Your task to perform on an android device: set an alarm Image 0: 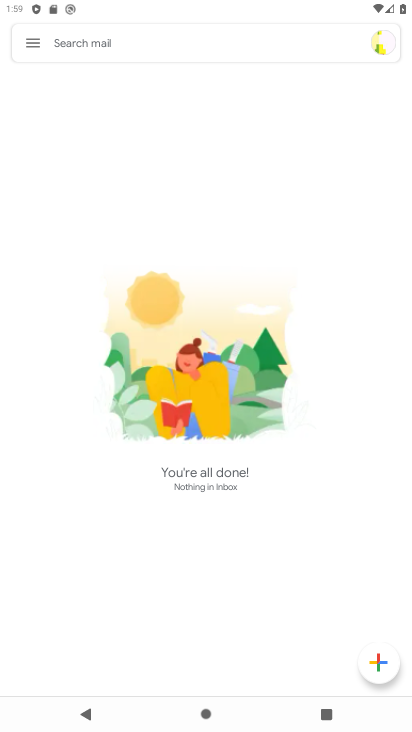
Step 0: press home button
Your task to perform on an android device: set an alarm Image 1: 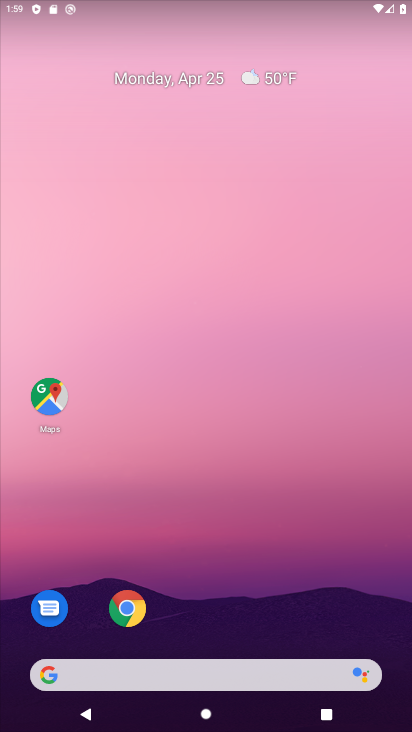
Step 1: drag from (196, 621) to (188, 269)
Your task to perform on an android device: set an alarm Image 2: 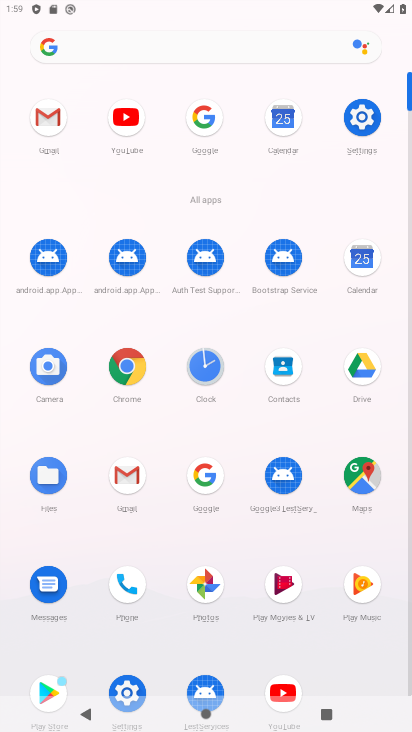
Step 2: drag from (254, 521) to (271, 286)
Your task to perform on an android device: set an alarm Image 3: 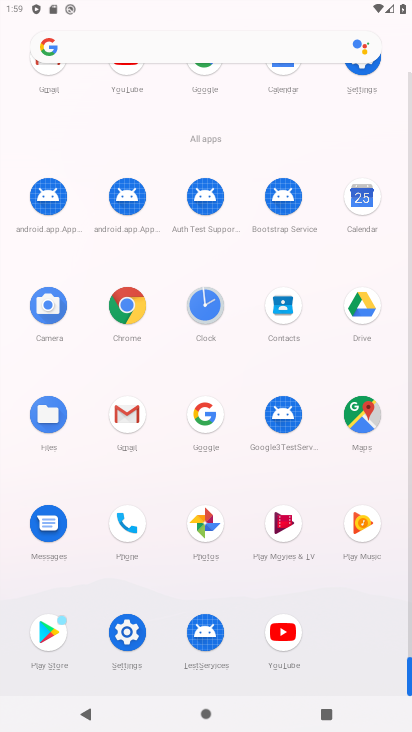
Step 3: click (193, 317)
Your task to perform on an android device: set an alarm Image 4: 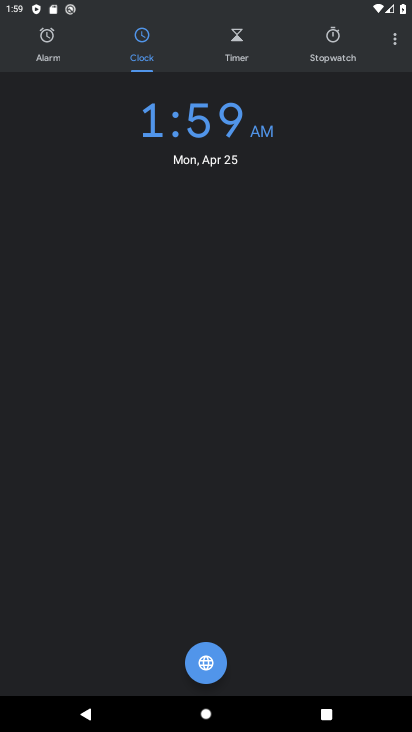
Step 4: click (56, 41)
Your task to perform on an android device: set an alarm Image 5: 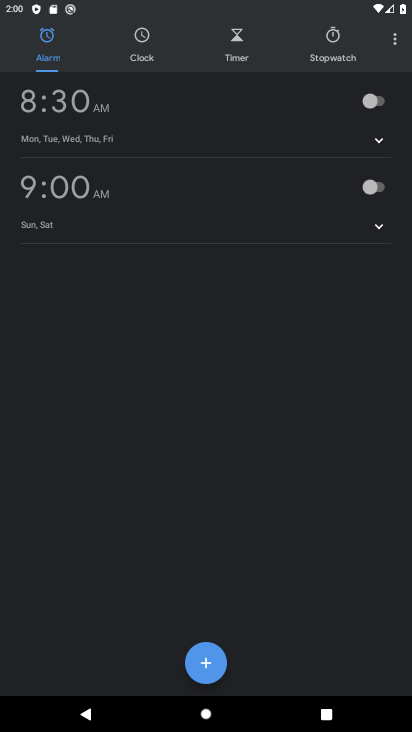
Step 5: click (377, 99)
Your task to perform on an android device: set an alarm Image 6: 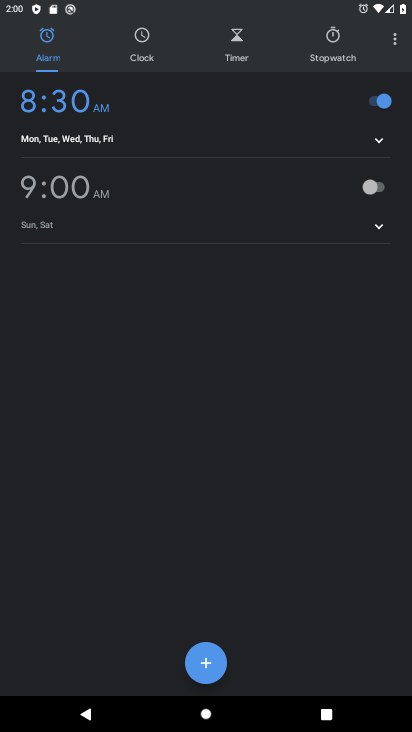
Step 6: task complete